Your task to perform on an android device: Go to Reddit.com Image 0: 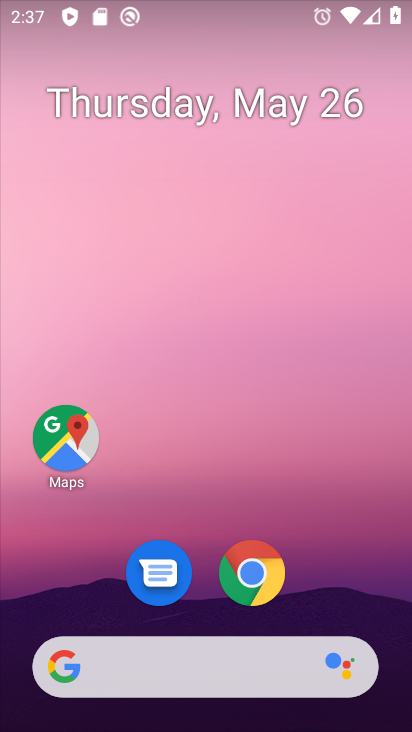
Step 0: click (254, 574)
Your task to perform on an android device: Go to Reddit.com Image 1: 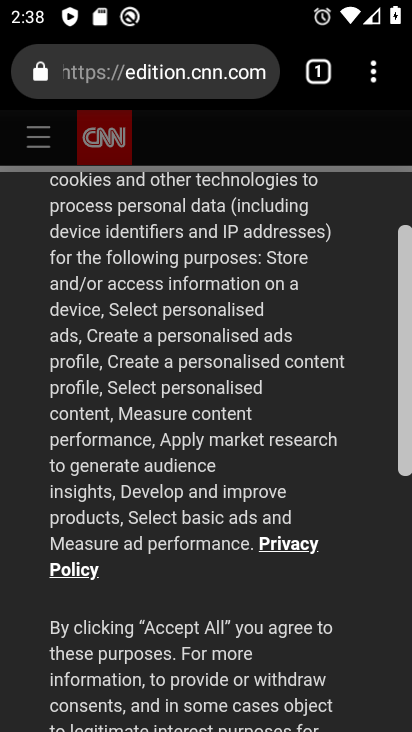
Step 1: click (222, 79)
Your task to perform on an android device: Go to Reddit.com Image 2: 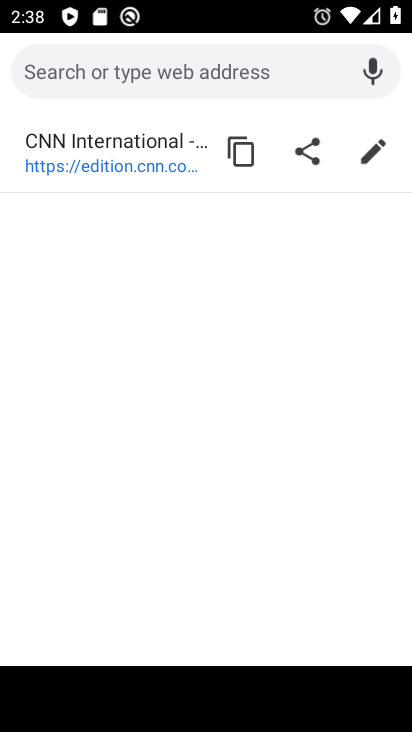
Step 2: type "Reddit.com"
Your task to perform on an android device: Go to Reddit.com Image 3: 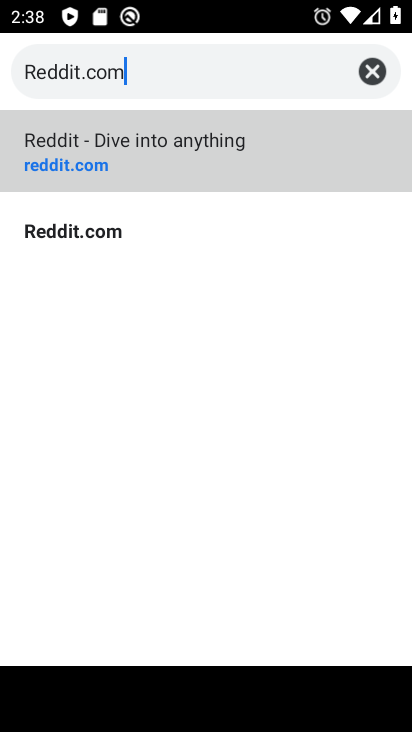
Step 3: type ""
Your task to perform on an android device: Go to Reddit.com Image 4: 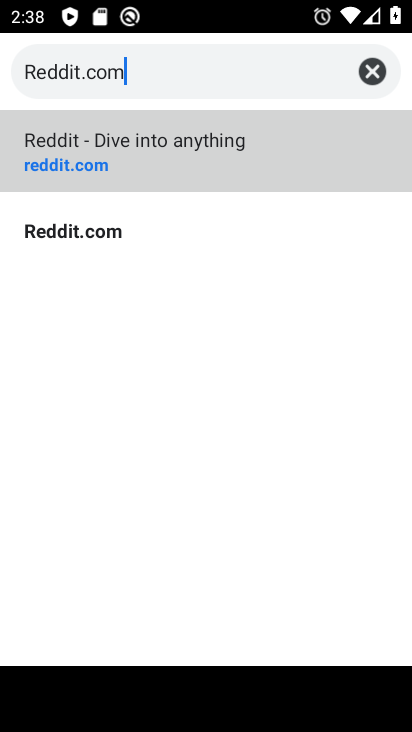
Step 4: click (80, 237)
Your task to perform on an android device: Go to Reddit.com Image 5: 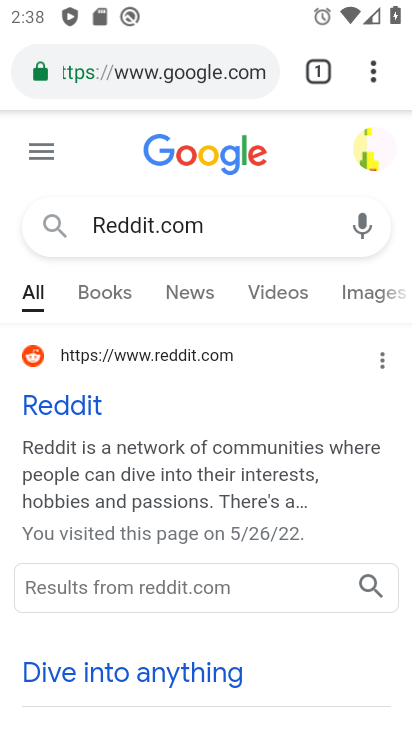
Step 5: click (86, 411)
Your task to perform on an android device: Go to Reddit.com Image 6: 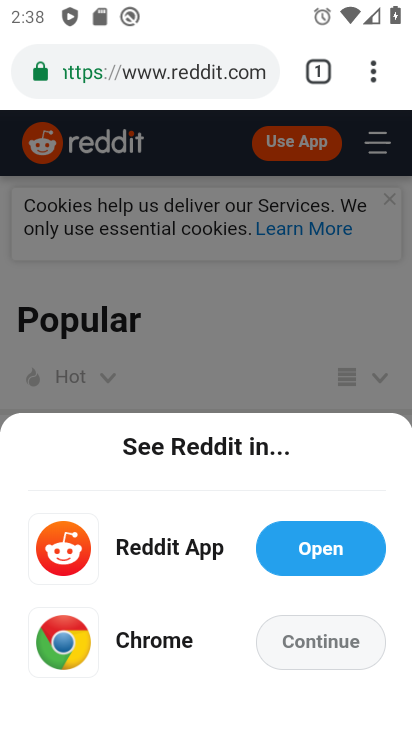
Step 6: click (325, 644)
Your task to perform on an android device: Go to Reddit.com Image 7: 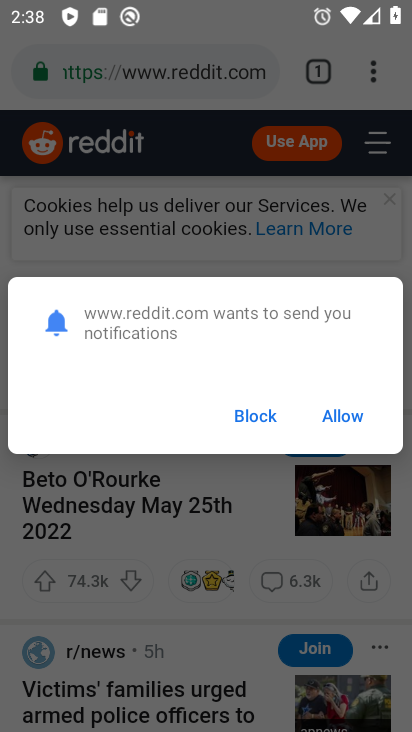
Step 7: click (349, 409)
Your task to perform on an android device: Go to Reddit.com Image 8: 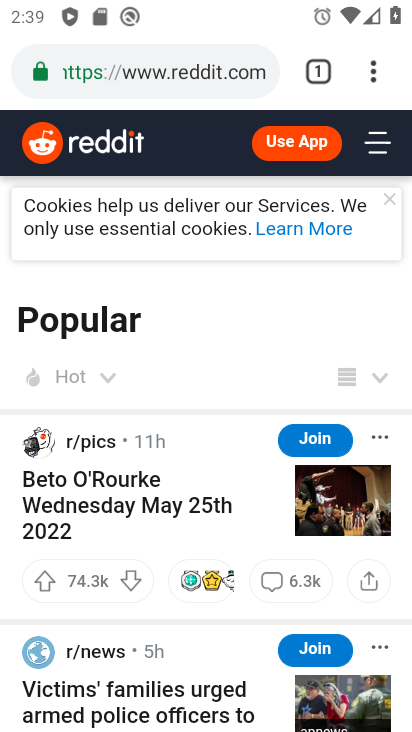
Step 8: task complete